Your task to perform on an android device: open wifi settings Image 0: 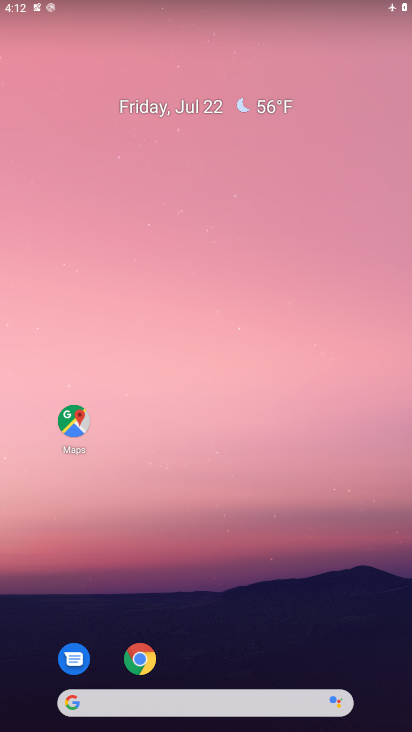
Step 0: drag from (185, 674) to (228, 160)
Your task to perform on an android device: open wifi settings Image 1: 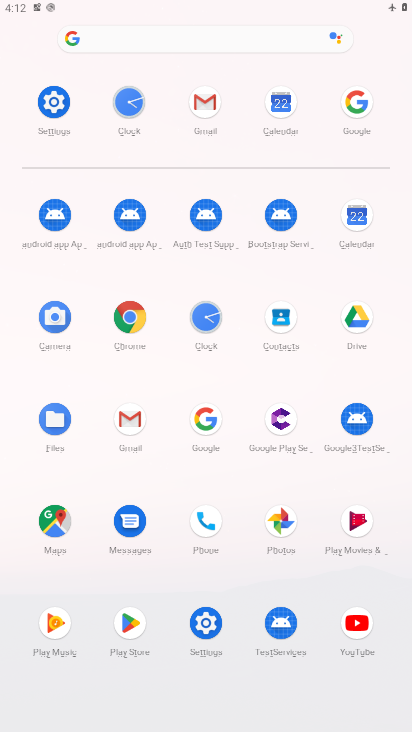
Step 1: click (58, 113)
Your task to perform on an android device: open wifi settings Image 2: 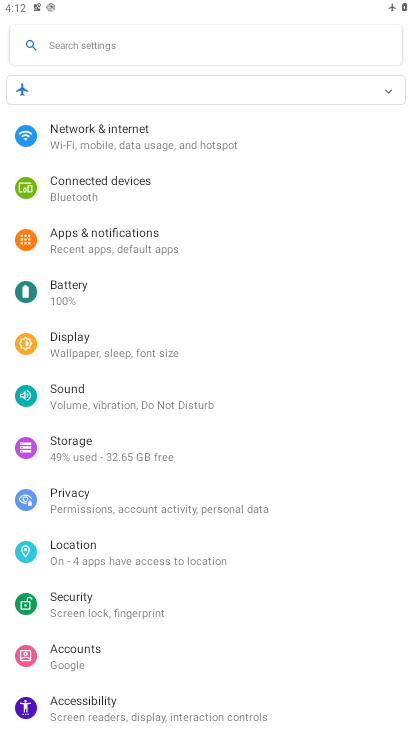
Step 2: click (76, 144)
Your task to perform on an android device: open wifi settings Image 3: 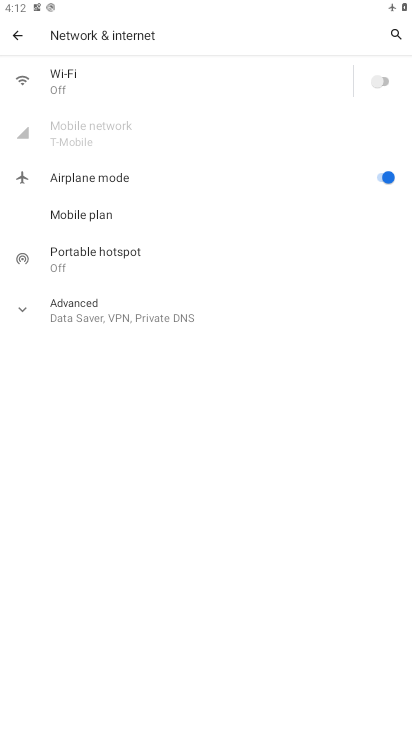
Step 3: click (74, 75)
Your task to perform on an android device: open wifi settings Image 4: 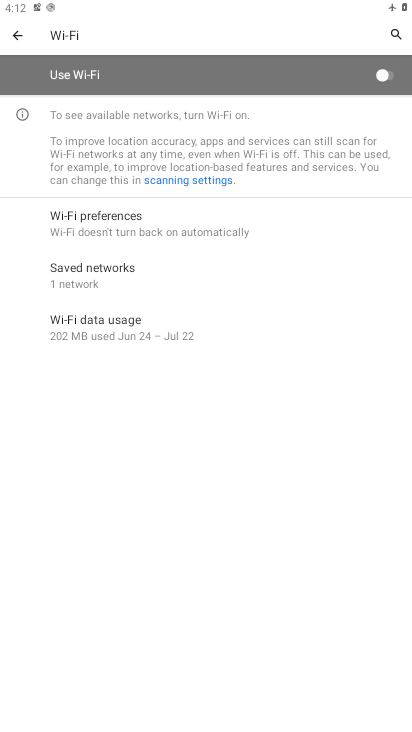
Step 4: click (394, 73)
Your task to perform on an android device: open wifi settings Image 5: 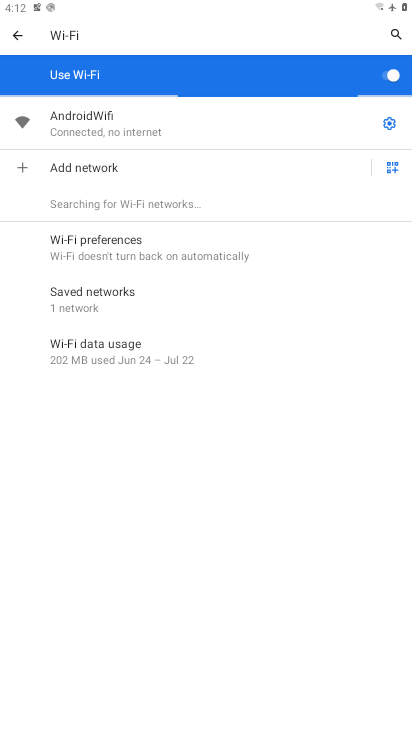
Step 5: click (389, 118)
Your task to perform on an android device: open wifi settings Image 6: 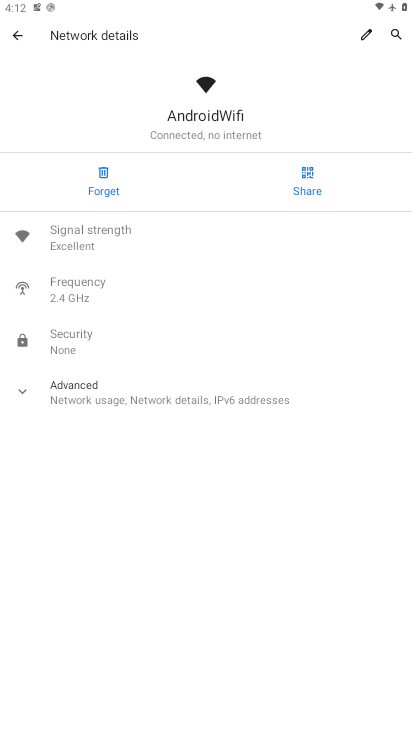
Step 6: task complete